Your task to perform on an android device: toggle pop-ups in chrome Image 0: 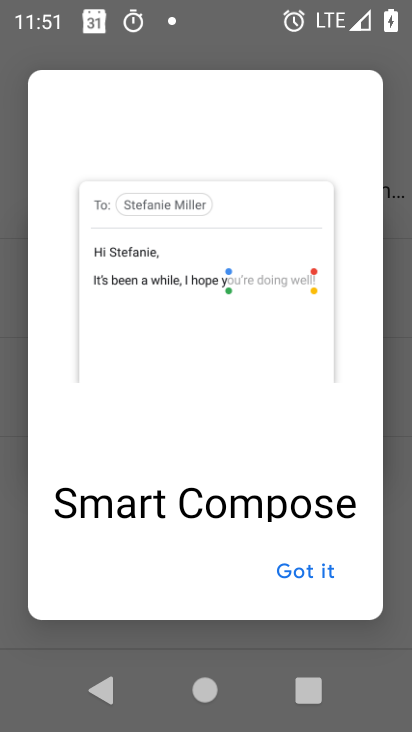
Step 0: press home button
Your task to perform on an android device: toggle pop-ups in chrome Image 1: 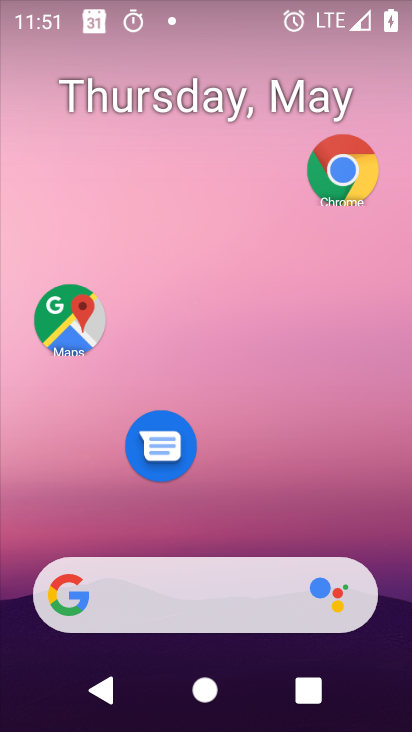
Step 1: drag from (279, 572) to (307, 64)
Your task to perform on an android device: toggle pop-ups in chrome Image 2: 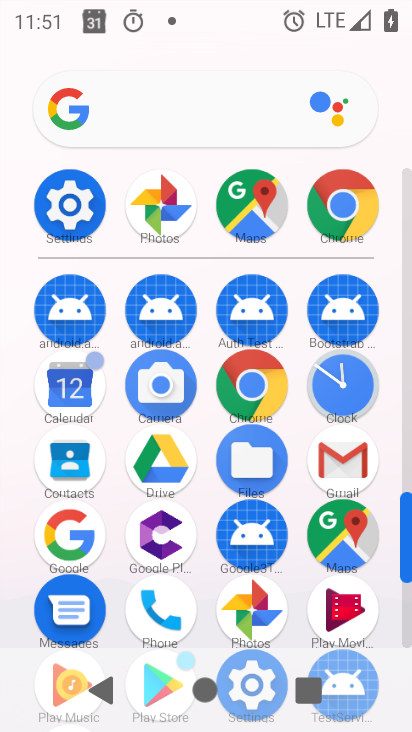
Step 2: click (258, 394)
Your task to perform on an android device: toggle pop-ups in chrome Image 3: 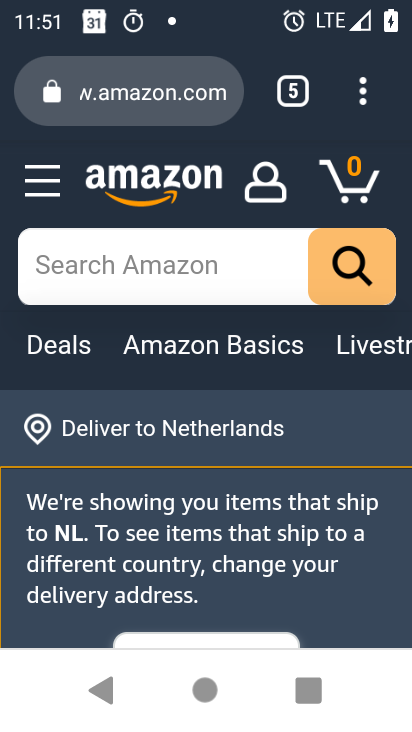
Step 3: click (370, 91)
Your task to perform on an android device: toggle pop-ups in chrome Image 4: 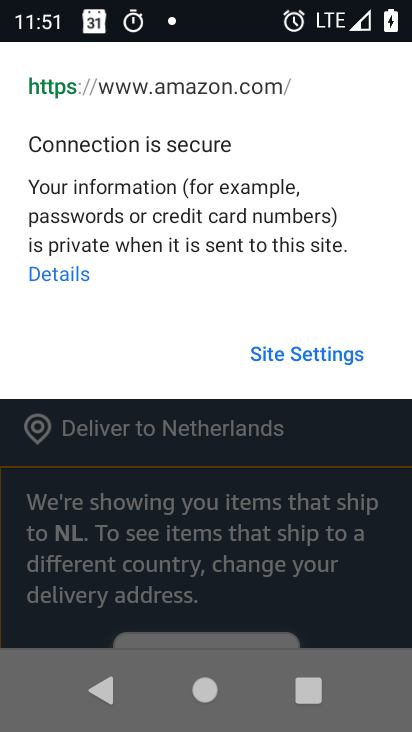
Step 4: click (313, 357)
Your task to perform on an android device: toggle pop-ups in chrome Image 5: 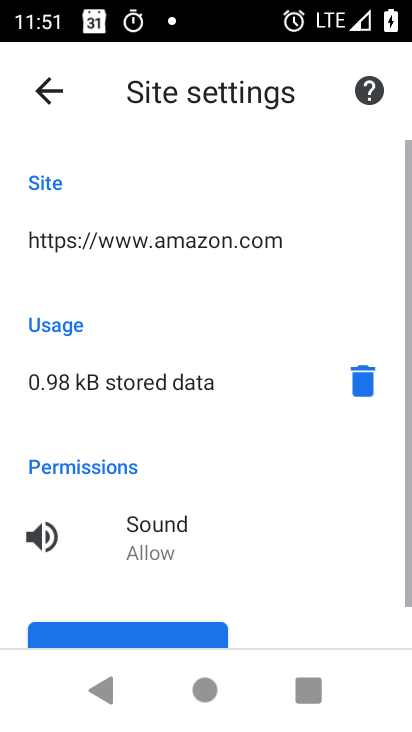
Step 5: drag from (275, 628) to (285, 79)
Your task to perform on an android device: toggle pop-ups in chrome Image 6: 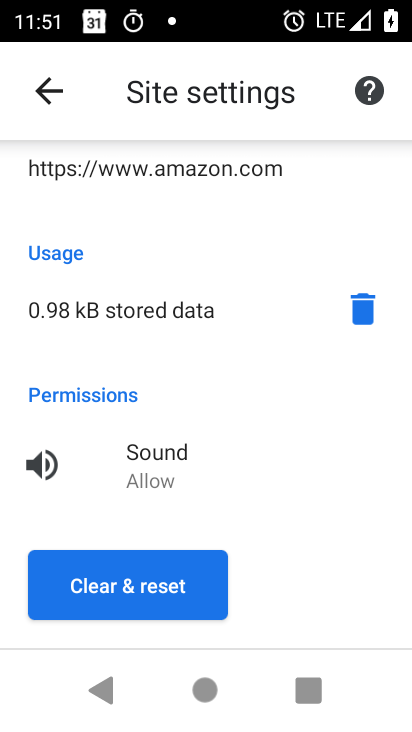
Step 6: press back button
Your task to perform on an android device: toggle pop-ups in chrome Image 7: 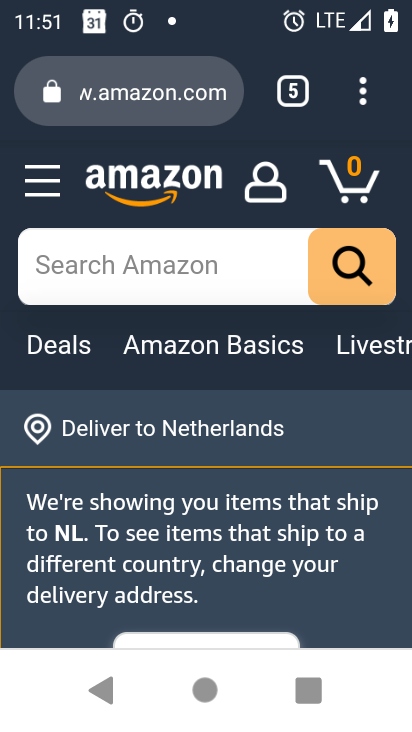
Step 7: drag from (357, 79) to (145, 480)
Your task to perform on an android device: toggle pop-ups in chrome Image 8: 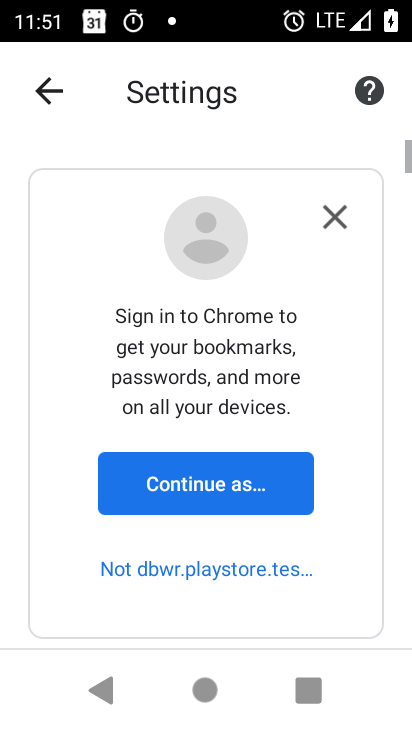
Step 8: drag from (315, 619) to (316, 92)
Your task to perform on an android device: toggle pop-ups in chrome Image 9: 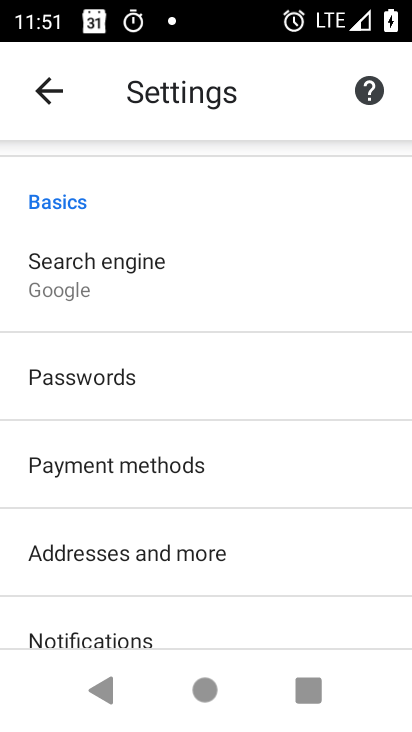
Step 9: drag from (242, 578) to (276, 82)
Your task to perform on an android device: toggle pop-ups in chrome Image 10: 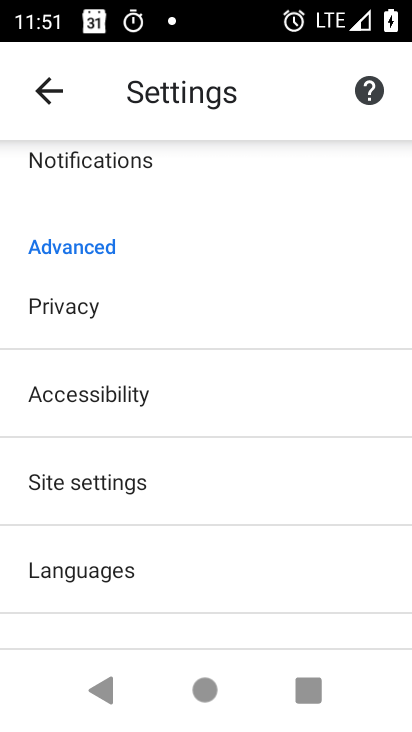
Step 10: click (173, 472)
Your task to perform on an android device: toggle pop-ups in chrome Image 11: 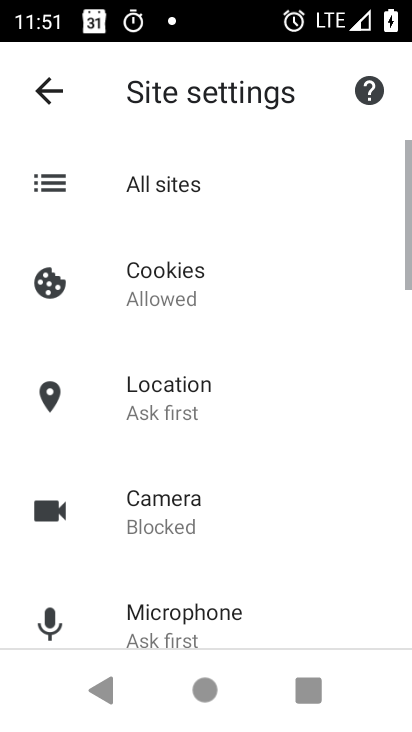
Step 11: drag from (186, 587) to (241, 125)
Your task to perform on an android device: toggle pop-ups in chrome Image 12: 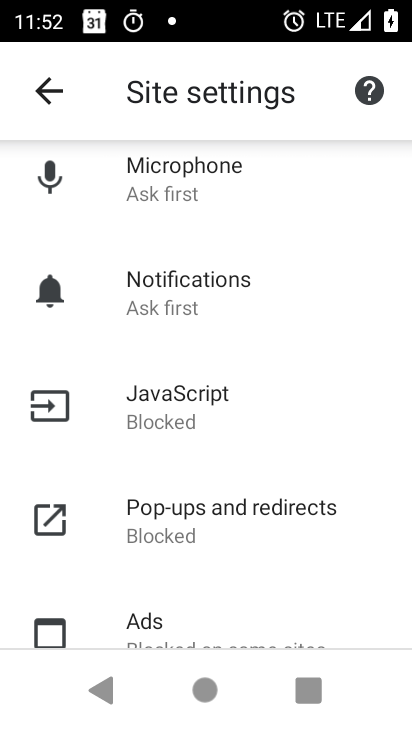
Step 12: click (230, 526)
Your task to perform on an android device: toggle pop-ups in chrome Image 13: 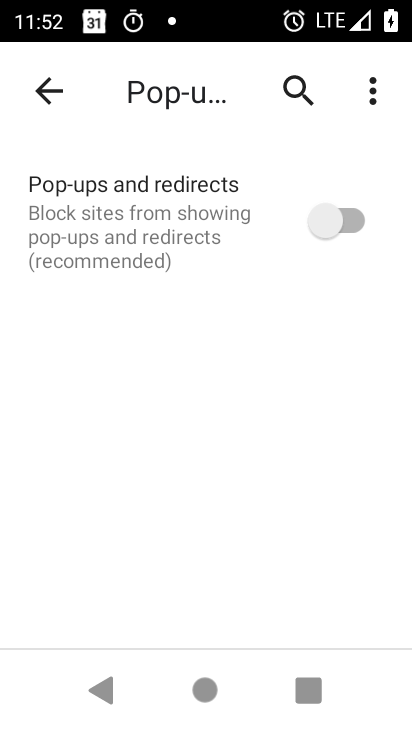
Step 13: click (352, 218)
Your task to perform on an android device: toggle pop-ups in chrome Image 14: 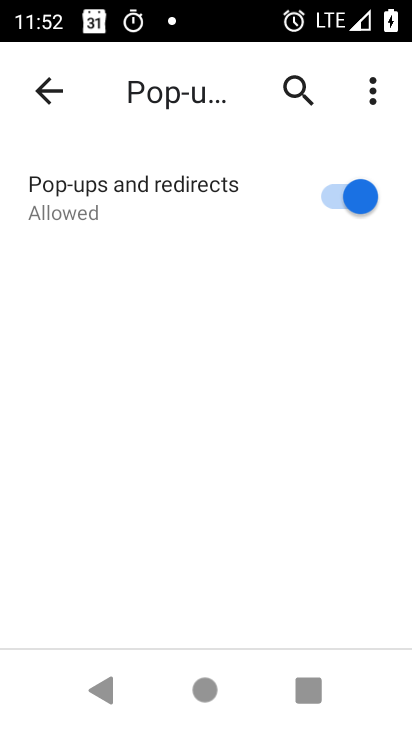
Step 14: task complete